Your task to perform on an android device: Do I have any events today? Image 0: 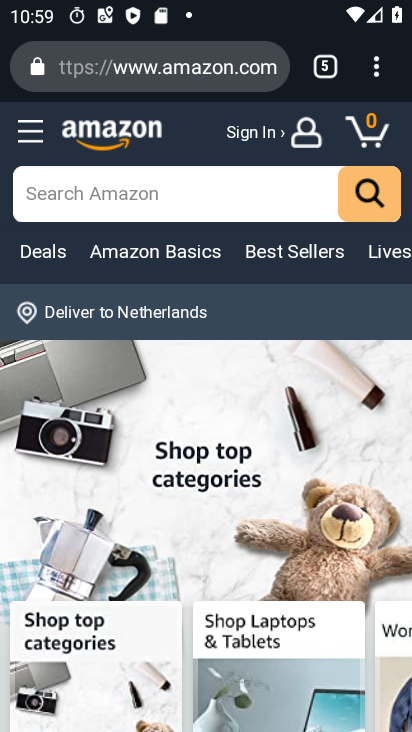
Step 0: press home button
Your task to perform on an android device: Do I have any events today? Image 1: 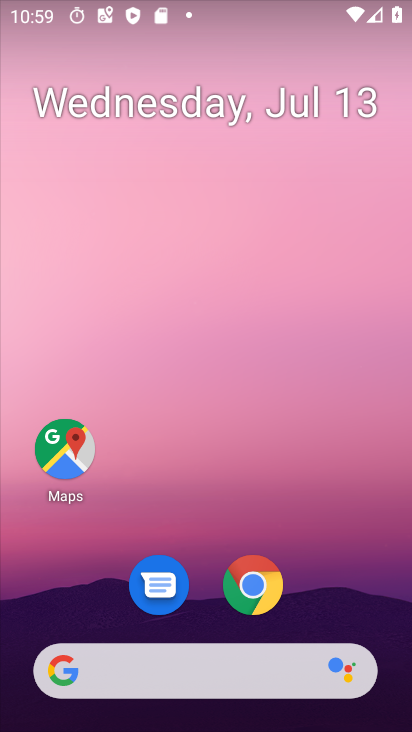
Step 1: drag from (287, 499) to (321, 62)
Your task to perform on an android device: Do I have any events today? Image 2: 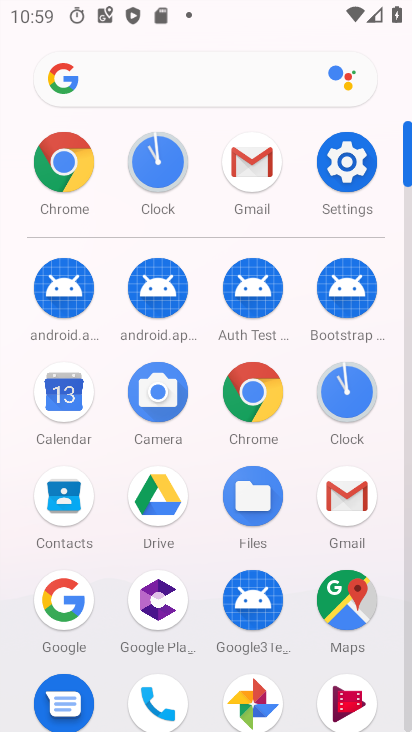
Step 2: click (51, 394)
Your task to perform on an android device: Do I have any events today? Image 3: 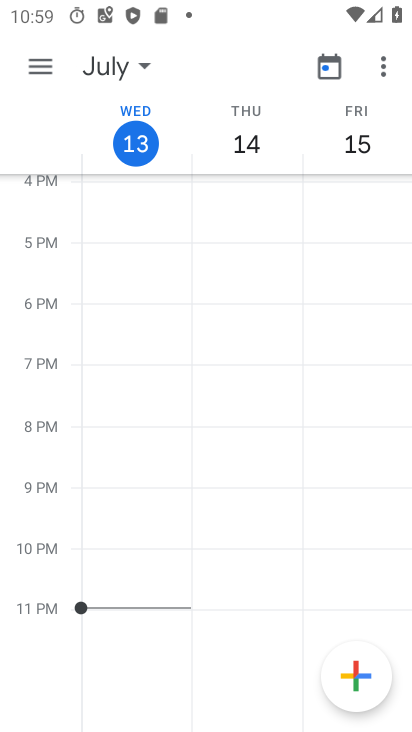
Step 3: task complete